Your task to perform on an android device: delete location history Image 0: 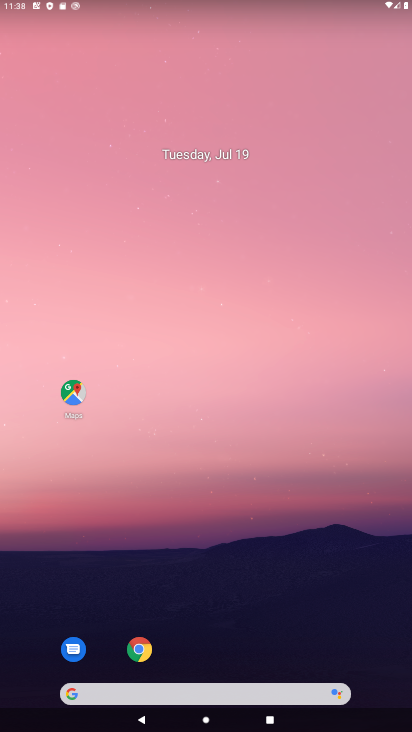
Step 0: drag from (263, 539) to (315, 3)
Your task to perform on an android device: delete location history Image 1: 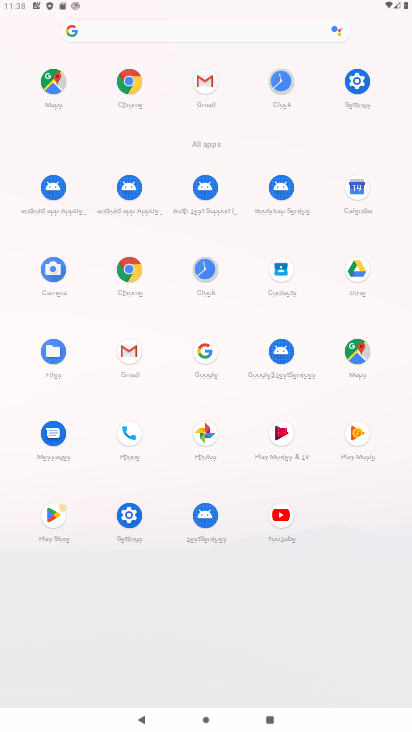
Step 1: click (134, 508)
Your task to perform on an android device: delete location history Image 2: 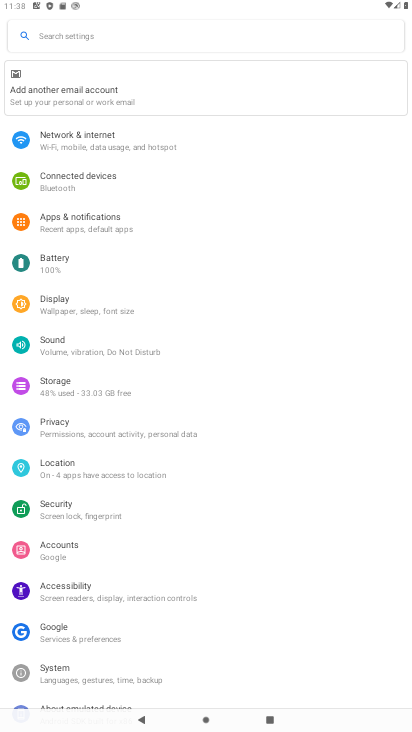
Step 2: click (70, 455)
Your task to perform on an android device: delete location history Image 3: 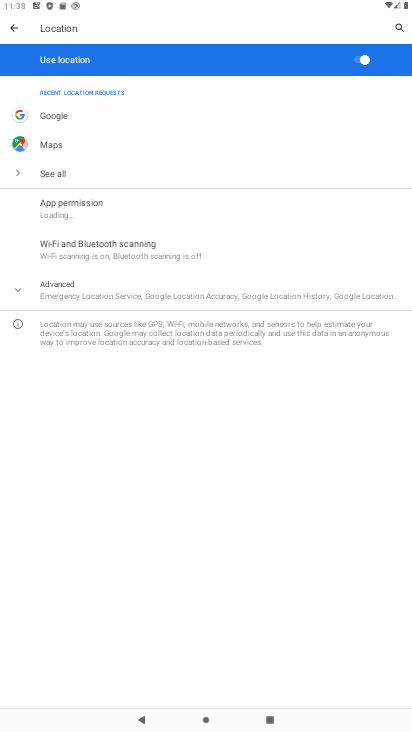
Step 3: task complete